Your task to perform on an android device: delete the emails in spam in the gmail app Image 0: 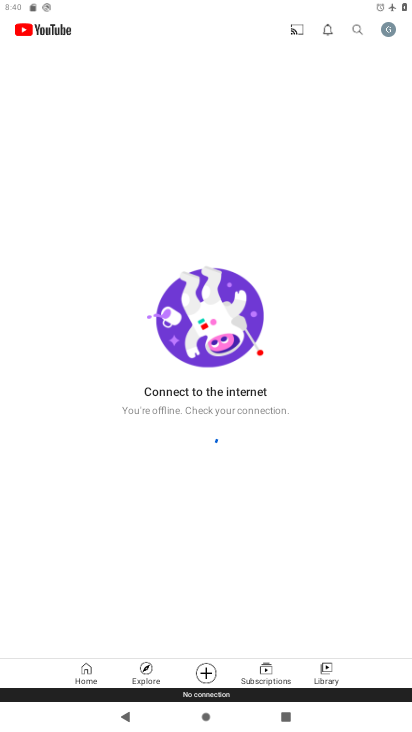
Step 0: press home button
Your task to perform on an android device: delete the emails in spam in the gmail app Image 1: 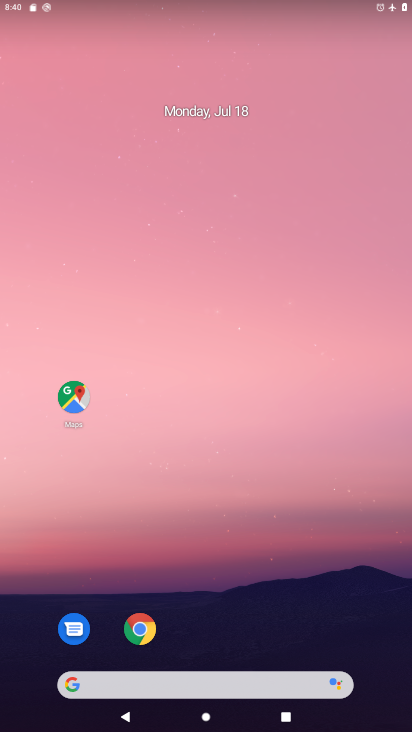
Step 1: drag from (202, 638) to (206, 70)
Your task to perform on an android device: delete the emails in spam in the gmail app Image 2: 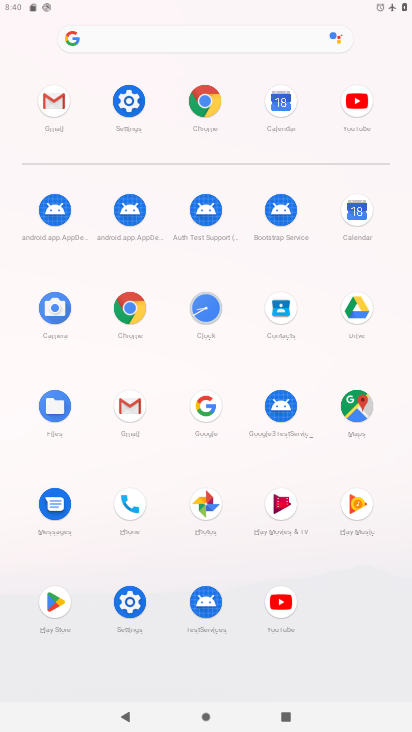
Step 2: click (122, 411)
Your task to perform on an android device: delete the emails in spam in the gmail app Image 3: 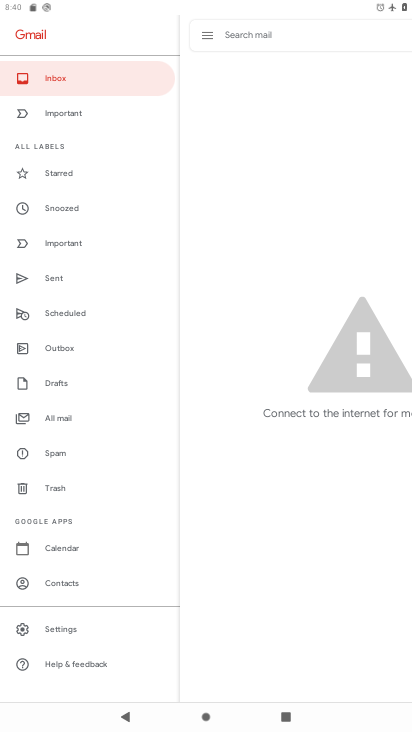
Step 3: click (66, 457)
Your task to perform on an android device: delete the emails in spam in the gmail app Image 4: 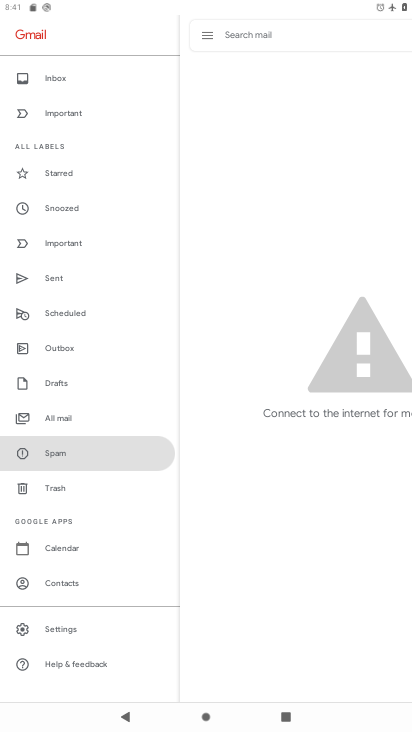
Step 4: task complete